Your task to perform on an android device: Open Google Chrome and open the bookmarks view Image 0: 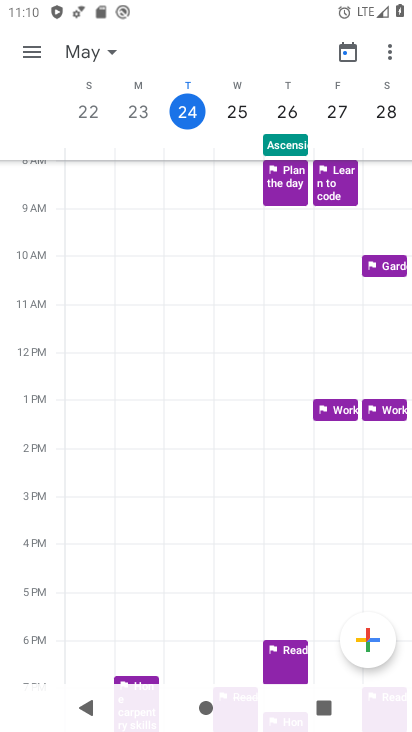
Step 0: press home button
Your task to perform on an android device: Open Google Chrome and open the bookmarks view Image 1: 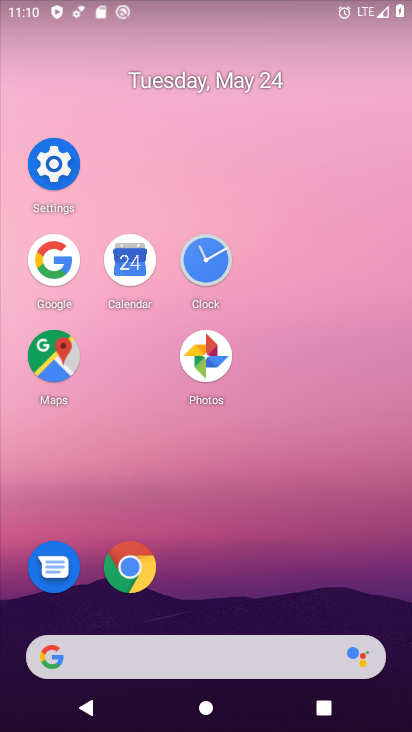
Step 1: click (138, 574)
Your task to perform on an android device: Open Google Chrome and open the bookmarks view Image 2: 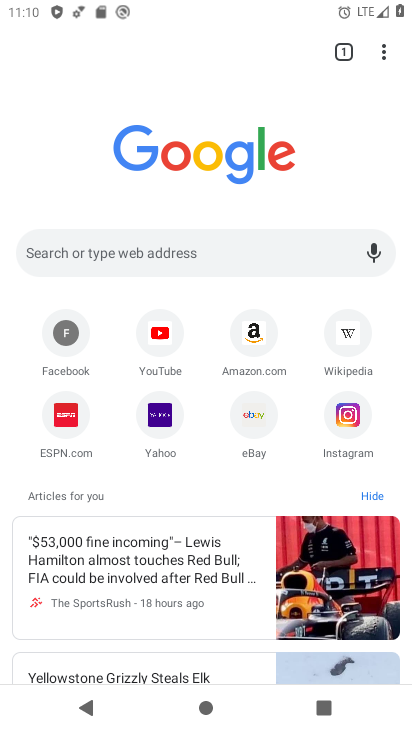
Step 2: click (399, 34)
Your task to perform on an android device: Open Google Chrome and open the bookmarks view Image 3: 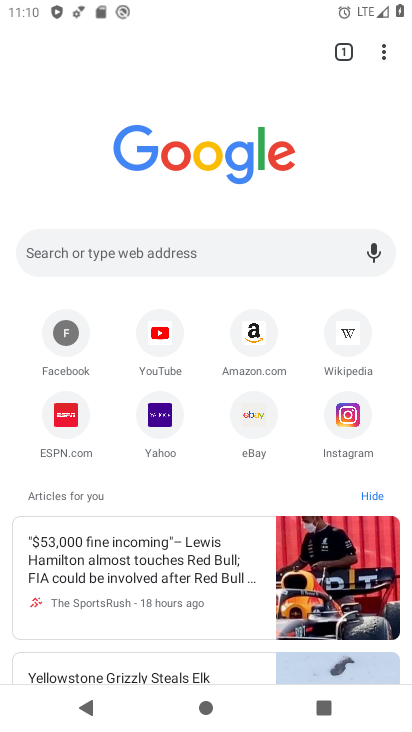
Step 3: click (379, 52)
Your task to perform on an android device: Open Google Chrome and open the bookmarks view Image 4: 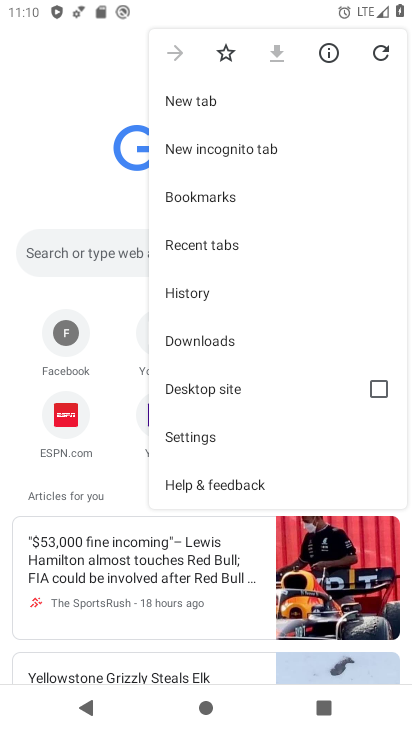
Step 4: click (201, 204)
Your task to perform on an android device: Open Google Chrome and open the bookmarks view Image 5: 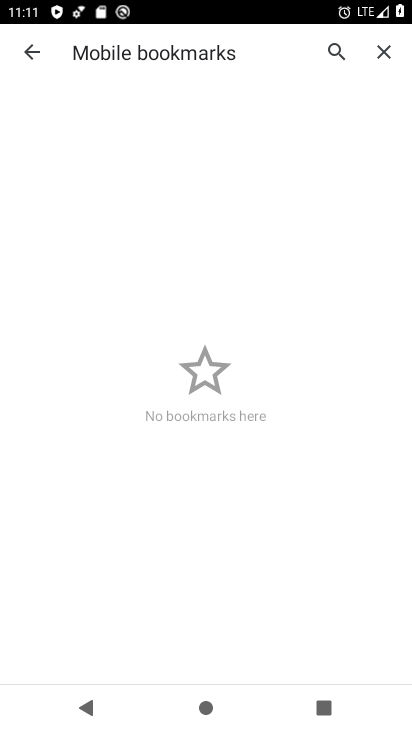
Step 5: task complete